Your task to perform on an android device: open chrome and create a bookmark for the current page Image 0: 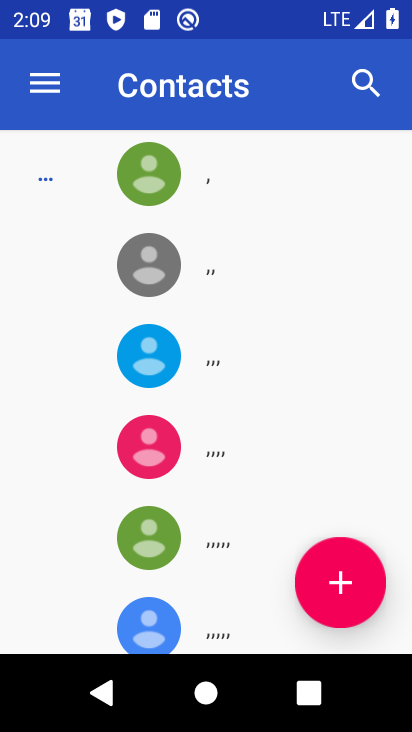
Step 0: press back button
Your task to perform on an android device: open chrome and create a bookmark for the current page Image 1: 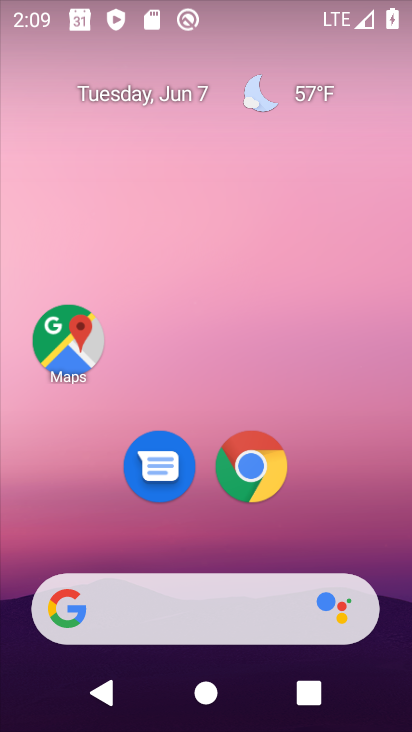
Step 1: click (251, 472)
Your task to perform on an android device: open chrome and create a bookmark for the current page Image 2: 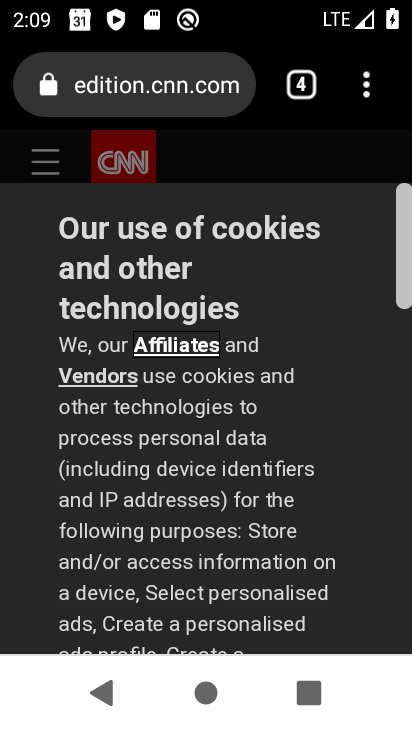
Step 2: task complete